Your task to perform on an android device: Go to wifi settings Image 0: 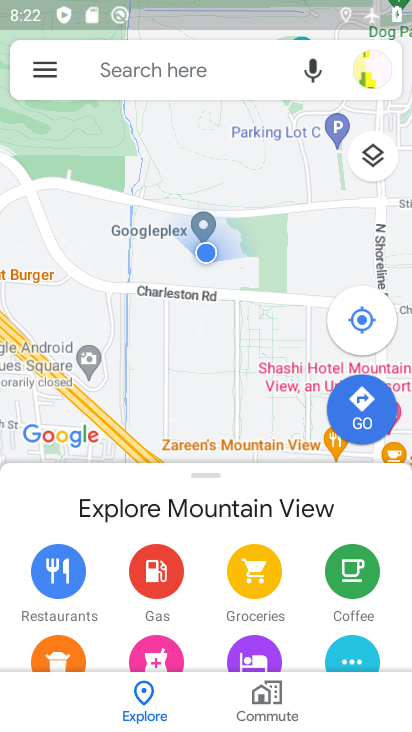
Step 0: drag from (228, 11) to (248, 419)
Your task to perform on an android device: Go to wifi settings Image 1: 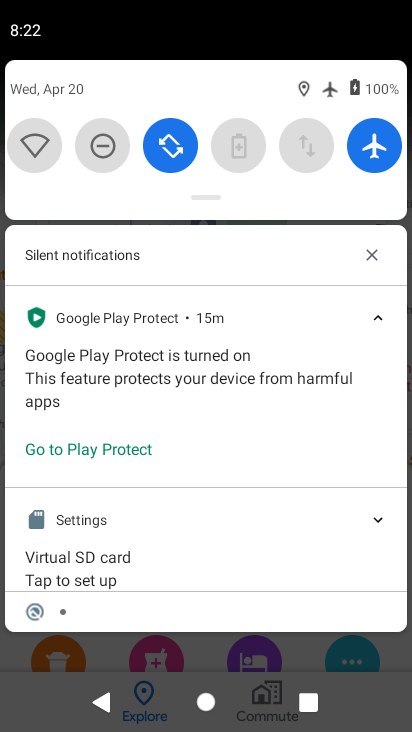
Step 1: click (46, 156)
Your task to perform on an android device: Go to wifi settings Image 2: 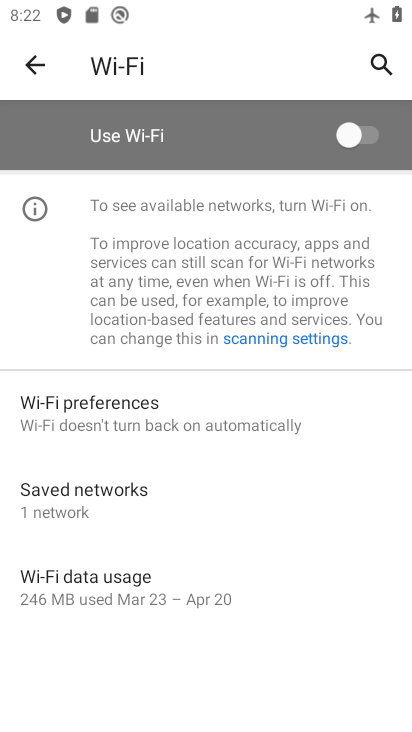
Step 2: task complete